Your task to perform on an android device: turn on the 24-hour format for clock Image 0: 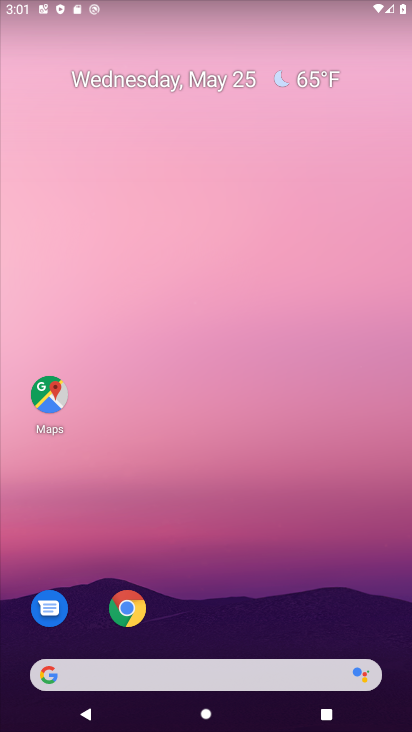
Step 0: drag from (284, 634) to (281, 64)
Your task to perform on an android device: turn on the 24-hour format for clock Image 1: 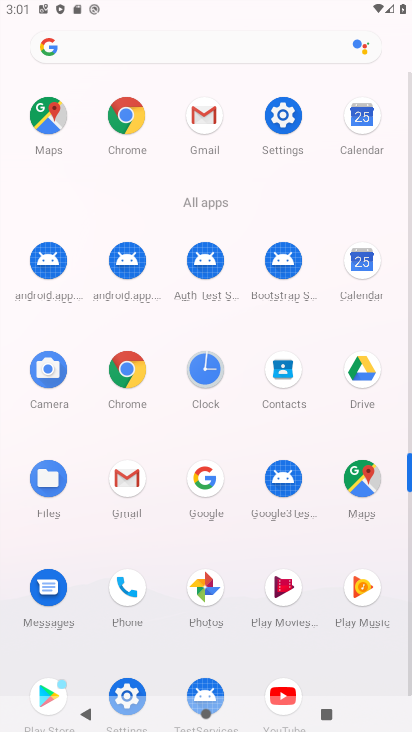
Step 1: click (202, 376)
Your task to perform on an android device: turn on the 24-hour format for clock Image 2: 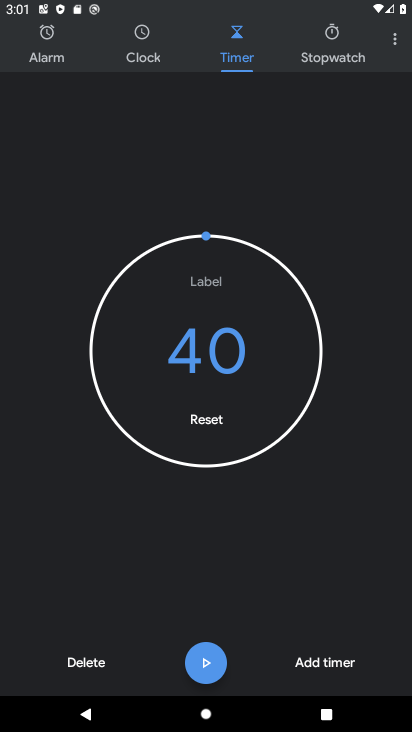
Step 2: click (392, 41)
Your task to perform on an android device: turn on the 24-hour format for clock Image 3: 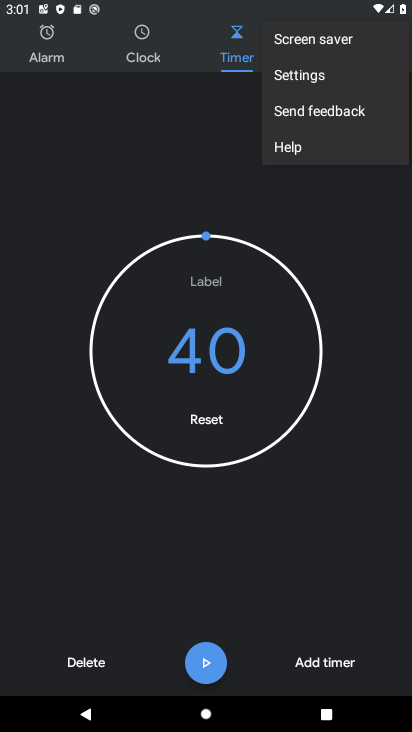
Step 3: click (307, 87)
Your task to perform on an android device: turn on the 24-hour format for clock Image 4: 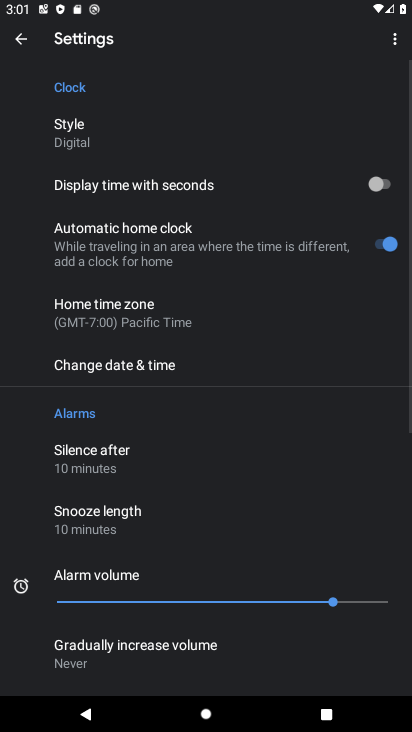
Step 4: click (118, 362)
Your task to perform on an android device: turn on the 24-hour format for clock Image 5: 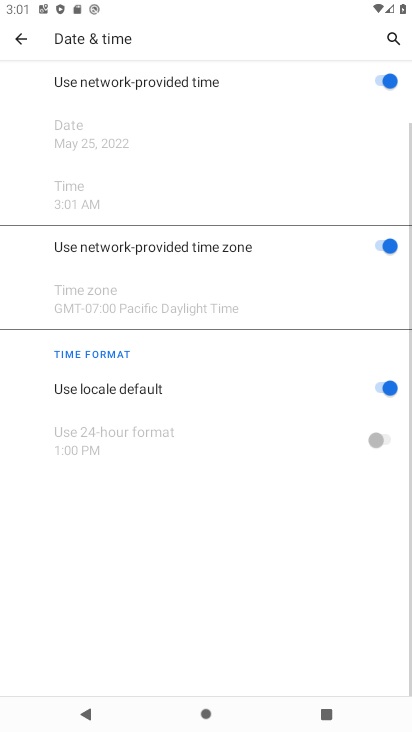
Step 5: drag from (185, 496) to (185, 330)
Your task to perform on an android device: turn on the 24-hour format for clock Image 6: 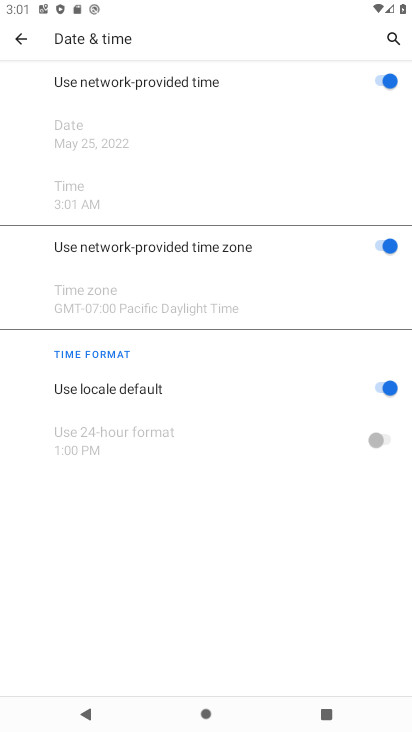
Step 6: click (392, 377)
Your task to perform on an android device: turn on the 24-hour format for clock Image 7: 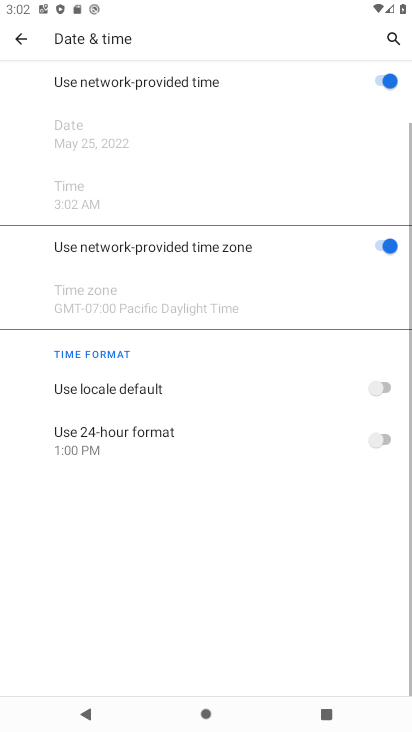
Step 7: click (374, 438)
Your task to perform on an android device: turn on the 24-hour format for clock Image 8: 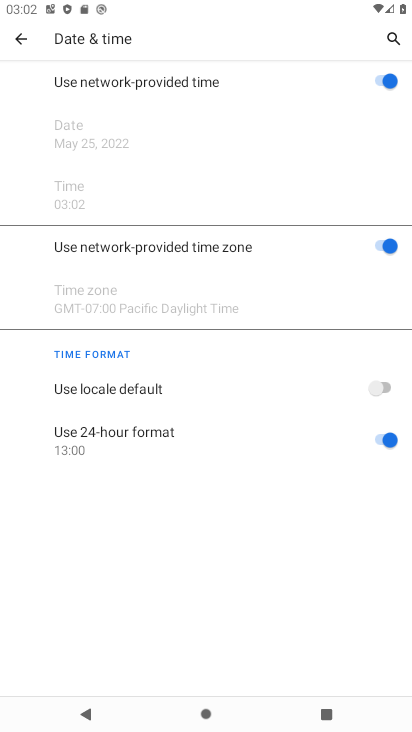
Step 8: task complete